Your task to perform on an android device: change text size in settings app Image 0: 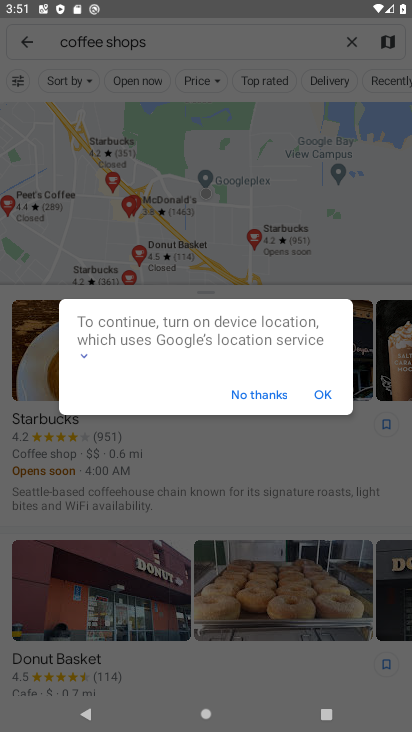
Step 0: press home button
Your task to perform on an android device: change text size in settings app Image 1: 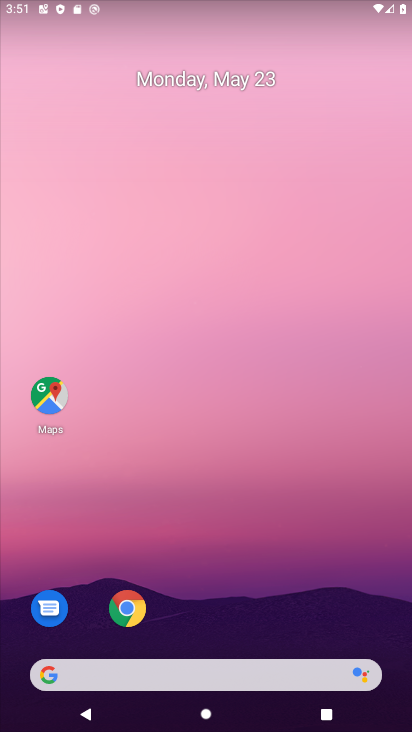
Step 1: drag from (245, 601) to (285, 285)
Your task to perform on an android device: change text size in settings app Image 2: 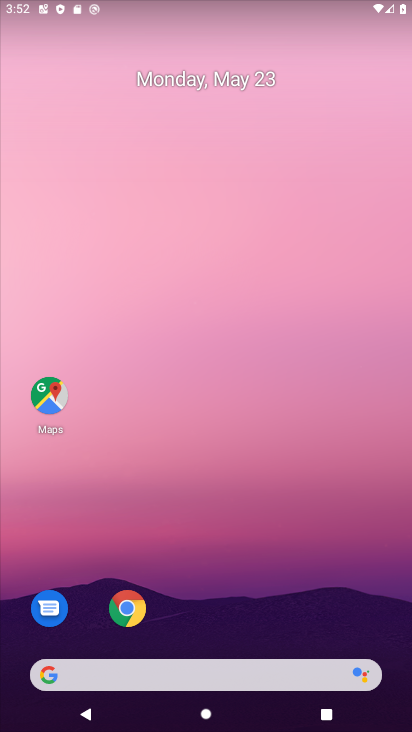
Step 2: drag from (237, 586) to (208, 87)
Your task to perform on an android device: change text size in settings app Image 3: 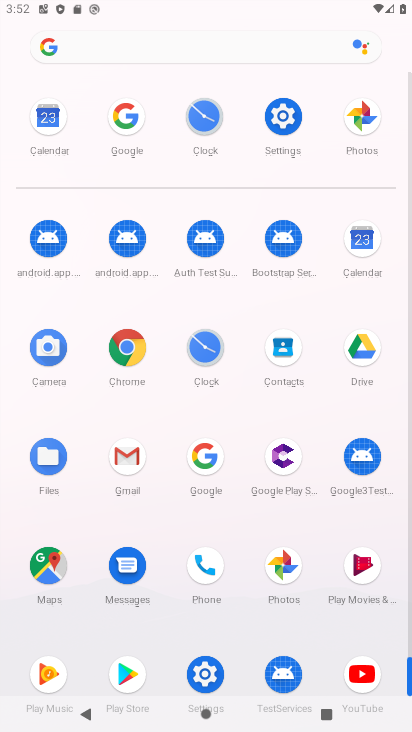
Step 3: click (284, 118)
Your task to perform on an android device: change text size in settings app Image 4: 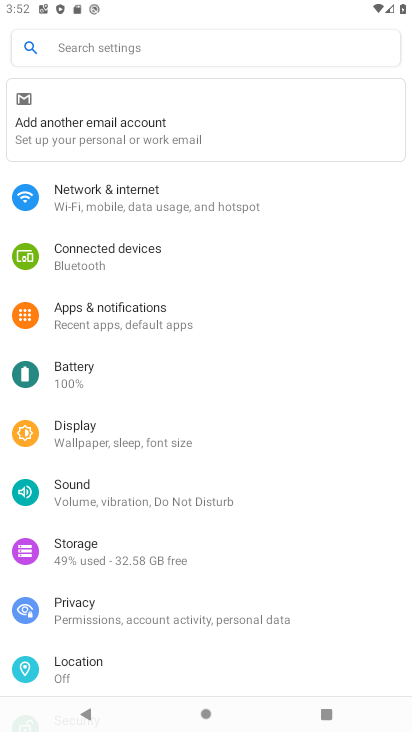
Step 4: drag from (158, 444) to (171, 361)
Your task to perform on an android device: change text size in settings app Image 5: 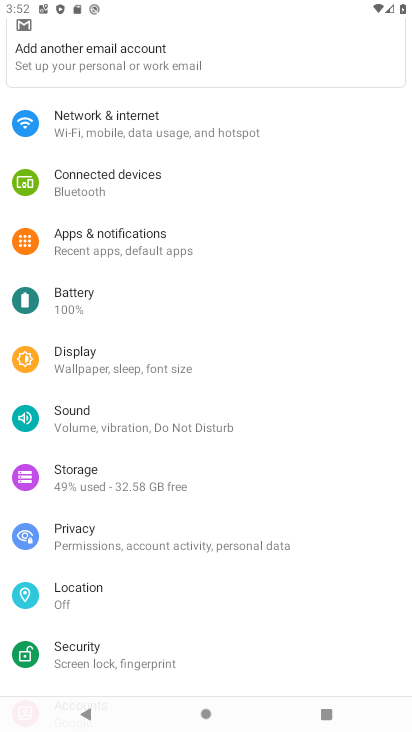
Step 5: drag from (150, 559) to (154, 444)
Your task to perform on an android device: change text size in settings app Image 6: 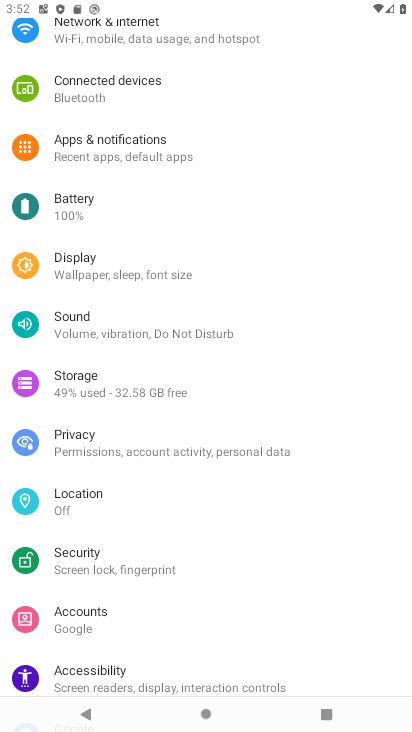
Step 6: drag from (147, 609) to (146, 527)
Your task to perform on an android device: change text size in settings app Image 7: 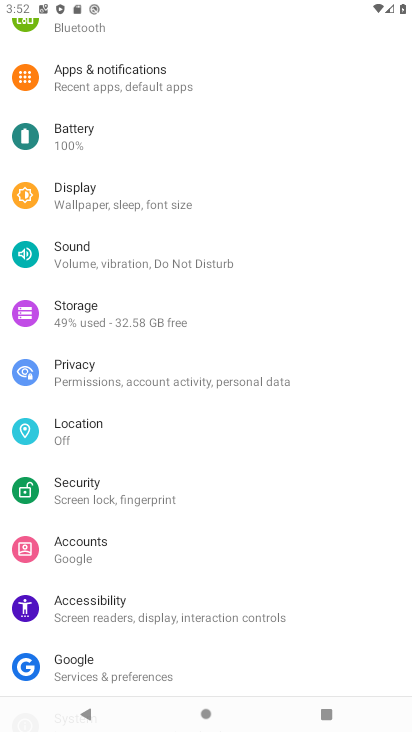
Step 7: click (142, 602)
Your task to perform on an android device: change text size in settings app Image 8: 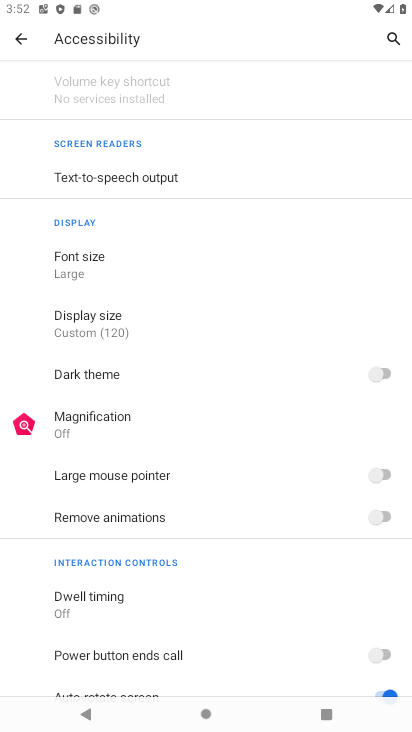
Step 8: click (105, 262)
Your task to perform on an android device: change text size in settings app Image 9: 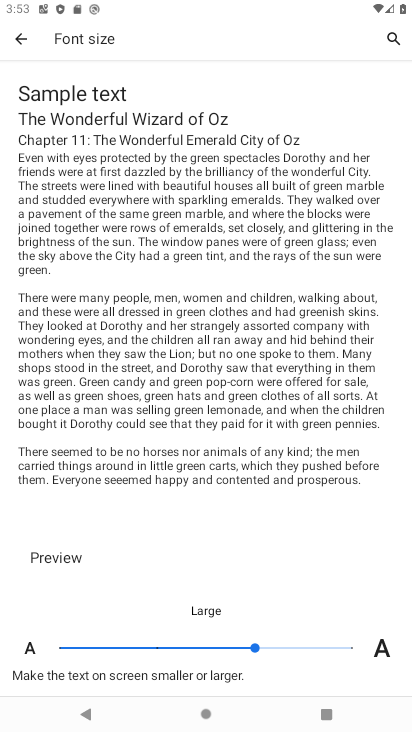
Step 9: click (160, 650)
Your task to perform on an android device: change text size in settings app Image 10: 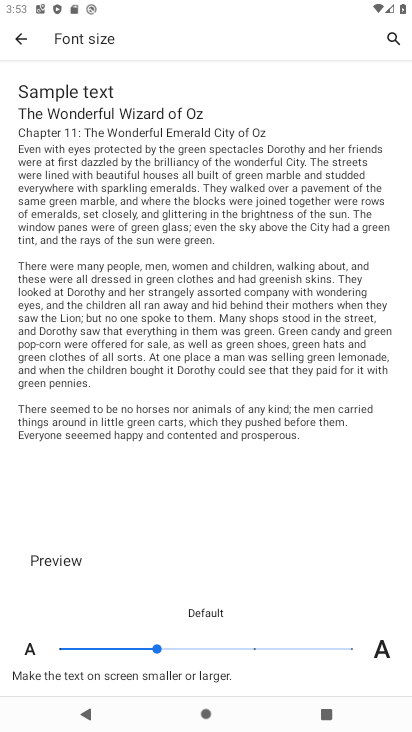
Step 10: task complete